Your task to perform on an android device: manage bookmarks in the chrome app Image 0: 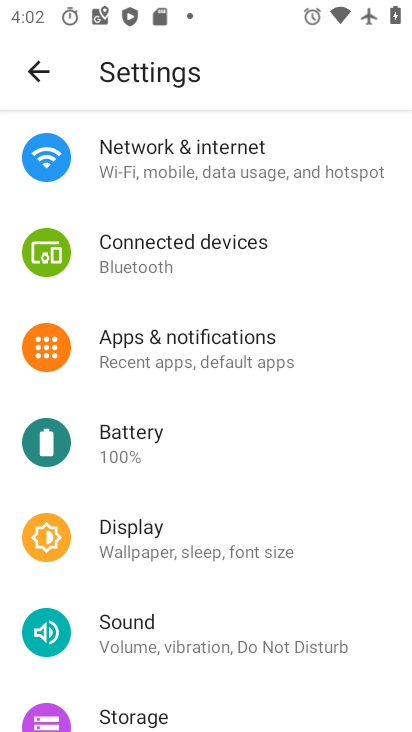
Step 0: press home button
Your task to perform on an android device: manage bookmarks in the chrome app Image 1: 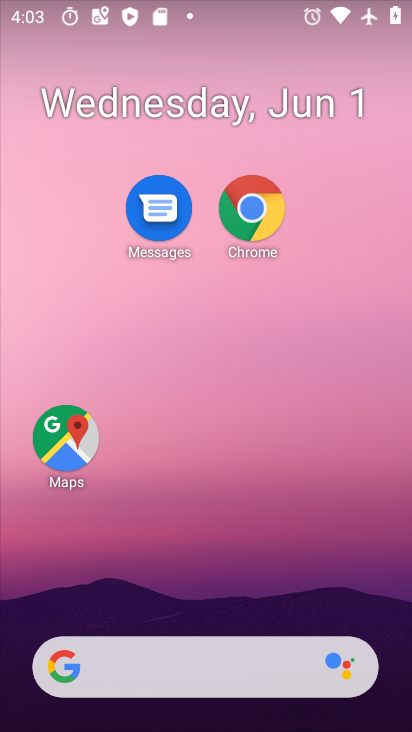
Step 1: click (243, 211)
Your task to perform on an android device: manage bookmarks in the chrome app Image 2: 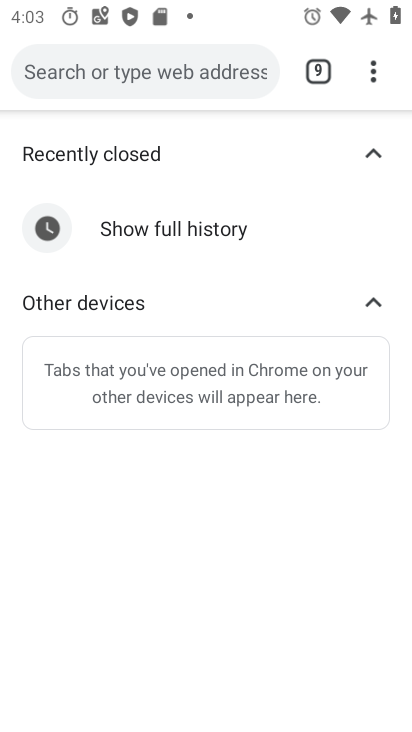
Step 2: task complete